Your task to perform on an android device: turn on the 12-hour format for clock Image 0: 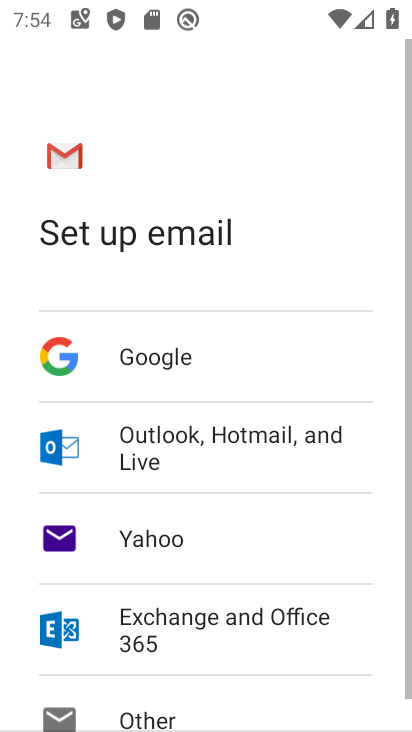
Step 0: press home button
Your task to perform on an android device: turn on the 12-hour format for clock Image 1: 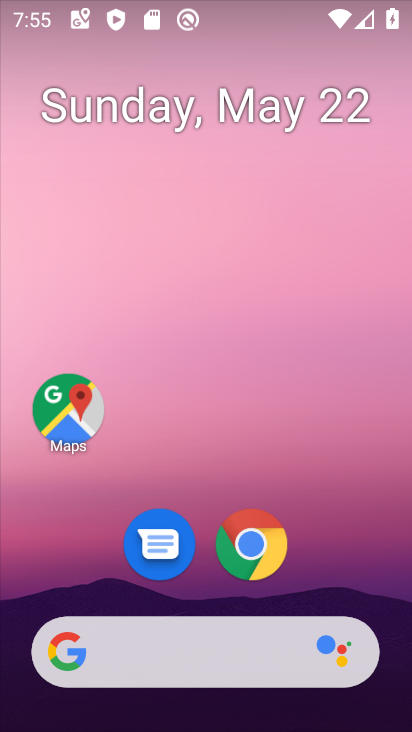
Step 1: drag from (335, 525) to (274, 66)
Your task to perform on an android device: turn on the 12-hour format for clock Image 2: 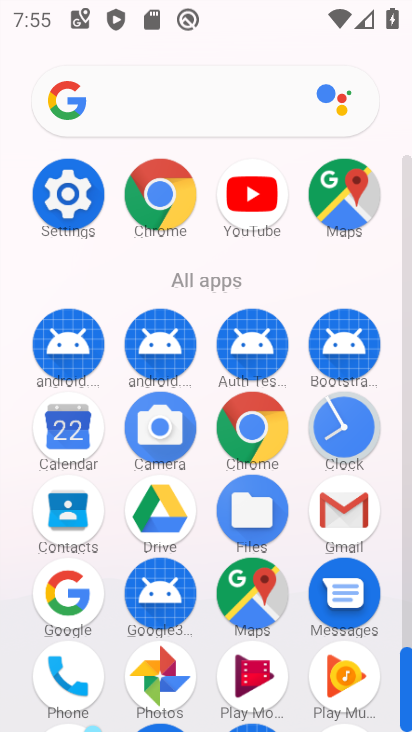
Step 2: click (357, 434)
Your task to perform on an android device: turn on the 12-hour format for clock Image 3: 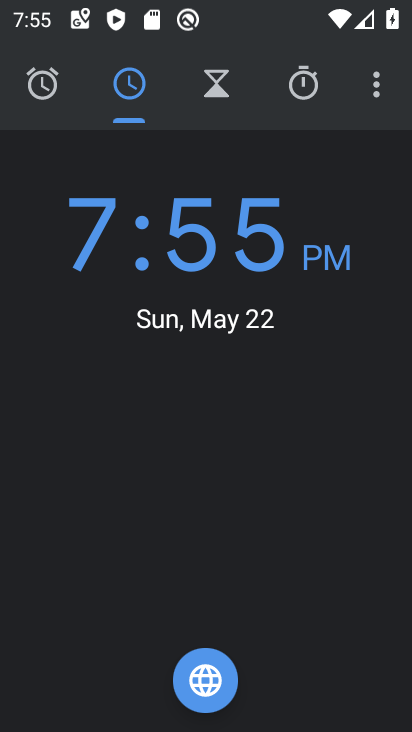
Step 3: click (380, 78)
Your task to perform on an android device: turn on the 12-hour format for clock Image 4: 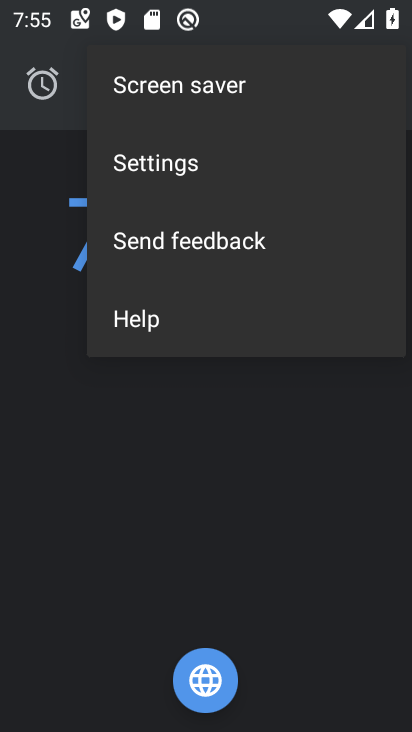
Step 4: click (153, 175)
Your task to perform on an android device: turn on the 12-hour format for clock Image 5: 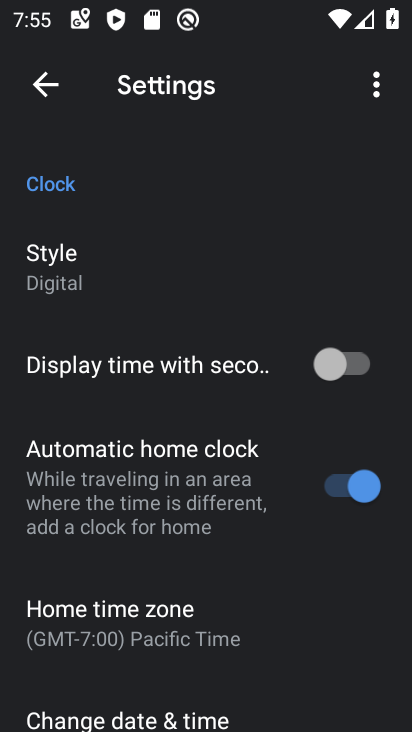
Step 5: click (177, 696)
Your task to perform on an android device: turn on the 12-hour format for clock Image 6: 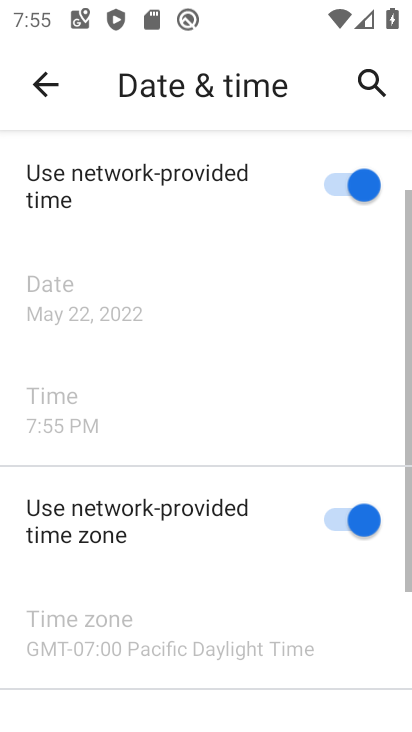
Step 6: task complete